Your task to perform on an android device: Search for vegetarian restaurants on Maps Image 0: 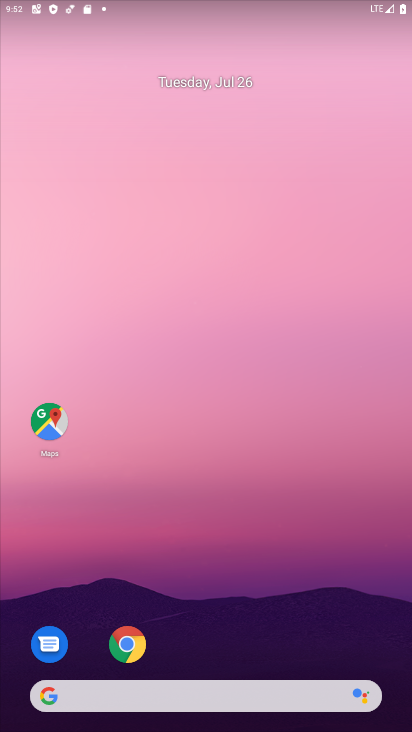
Step 0: click (50, 417)
Your task to perform on an android device: Search for vegetarian restaurants on Maps Image 1: 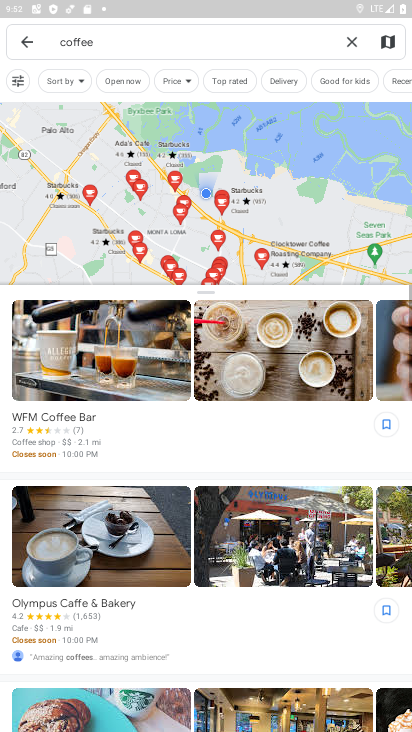
Step 1: click (346, 43)
Your task to perform on an android device: Search for vegetarian restaurants on Maps Image 2: 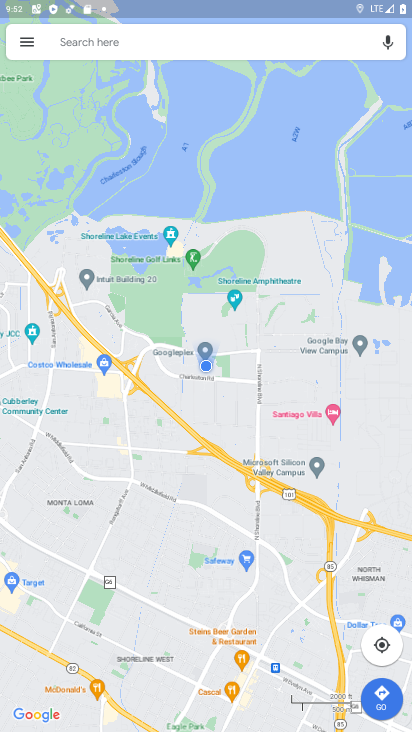
Step 2: click (132, 44)
Your task to perform on an android device: Search for vegetarian restaurants on Maps Image 3: 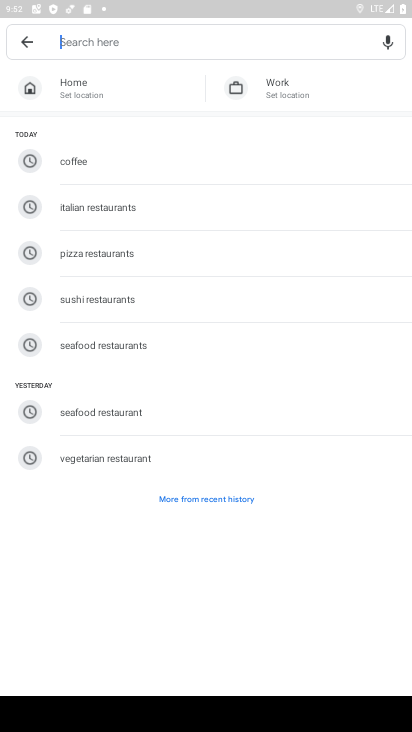
Step 3: type "vegetarian restaurants"
Your task to perform on an android device: Search for vegetarian restaurants on Maps Image 4: 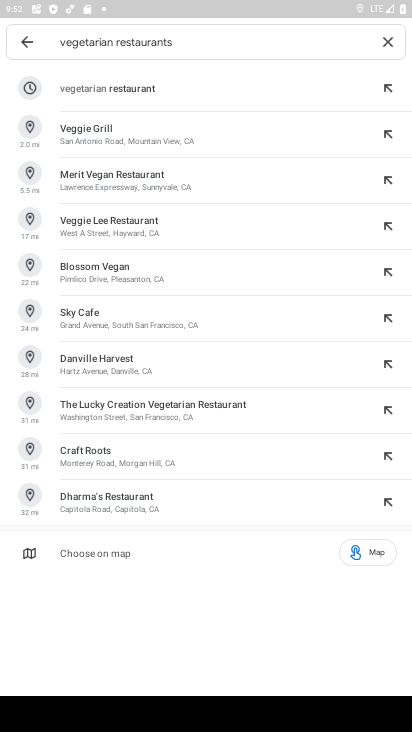
Step 4: click (77, 104)
Your task to perform on an android device: Search for vegetarian restaurants on Maps Image 5: 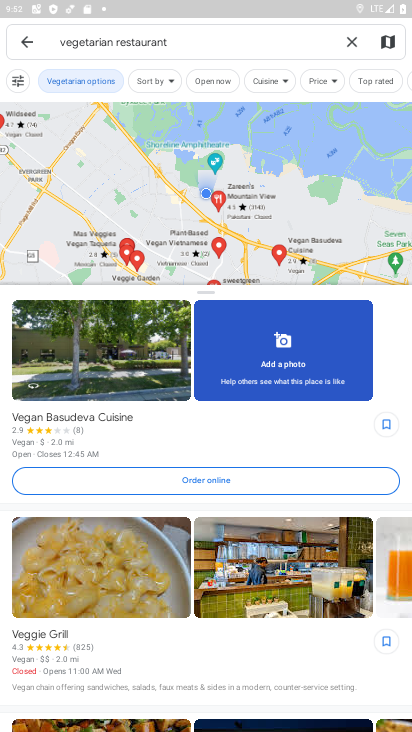
Step 5: task complete